Your task to perform on an android device: What's the weather going to be this weekend? Image 0: 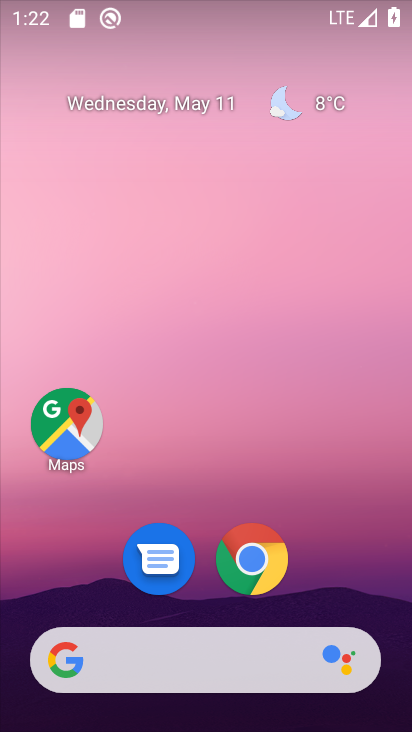
Step 0: click (280, 105)
Your task to perform on an android device: What's the weather going to be this weekend? Image 1: 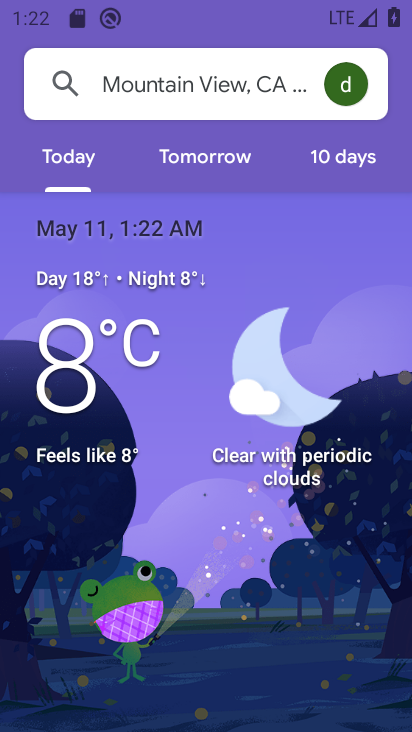
Step 1: click (329, 153)
Your task to perform on an android device: What's the weather going to be this weekend? Image 2: 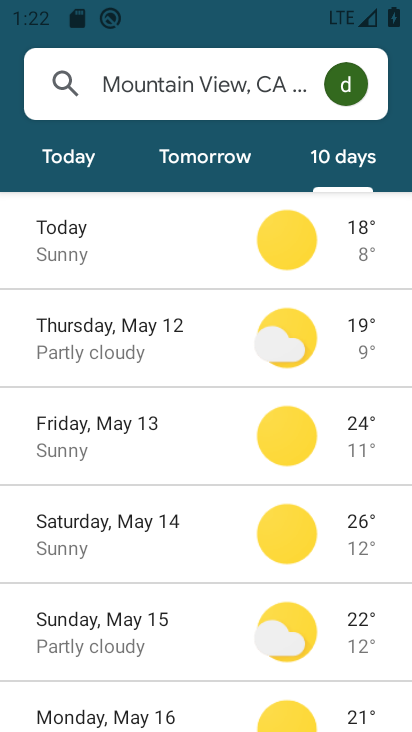
Step 2: drag from (145, 656) to (147, 561)
Your task to perform on an android device: What's the weather going to be this weekend? Image 3: 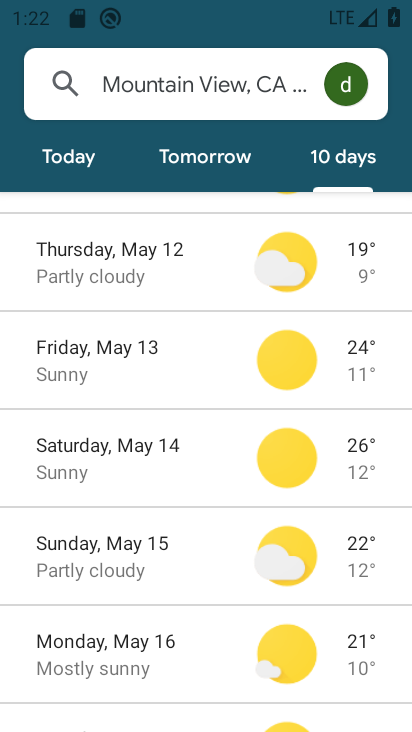
Step 3: click (169, 453)
Your task to perform on an android device: What's the weather going to be this weekend? Image 4: 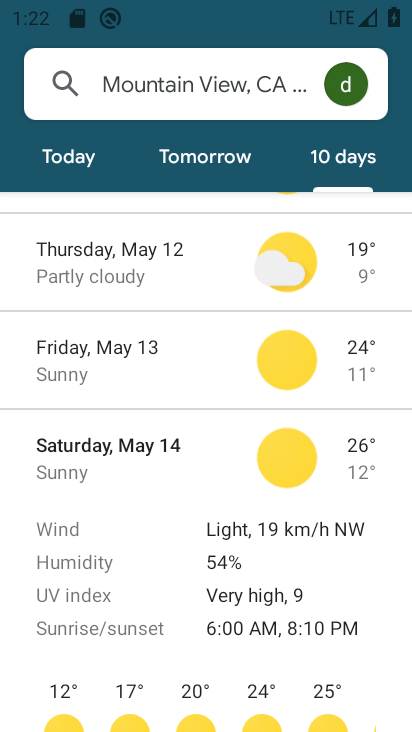
Step 4: task complete